Your task to perform on an android device: Show me productivity apps on the Play Store Image 0: 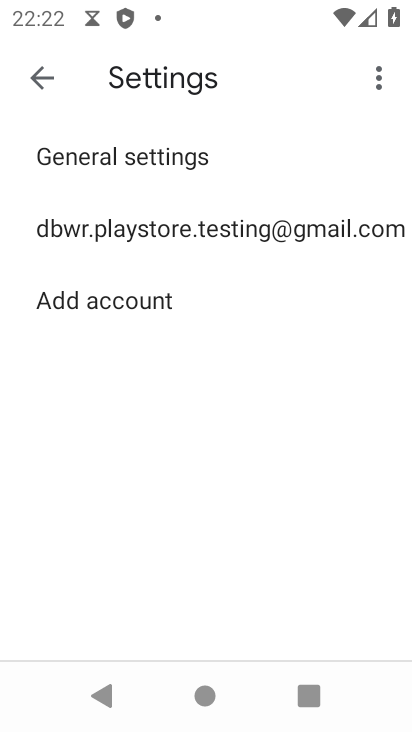
Step 0: press home button
Your task to perform on an android device: Show me productivity apps on the Play Store Image 1: 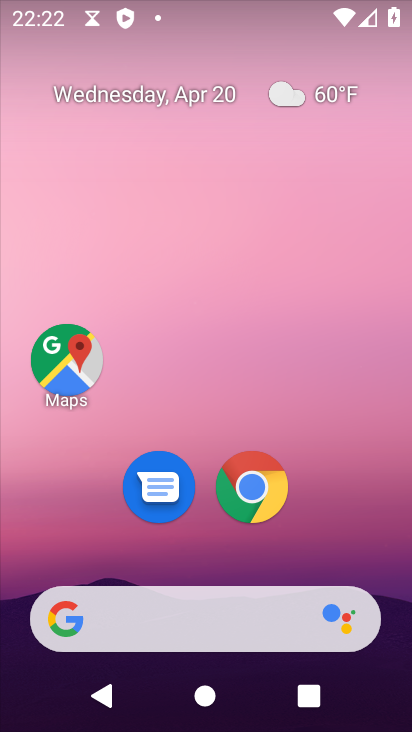
Step 1: drag from (50, 623) to (282, 323)
Your task to perform on an android device: Show me productivity apps on the Play Store Image 2: 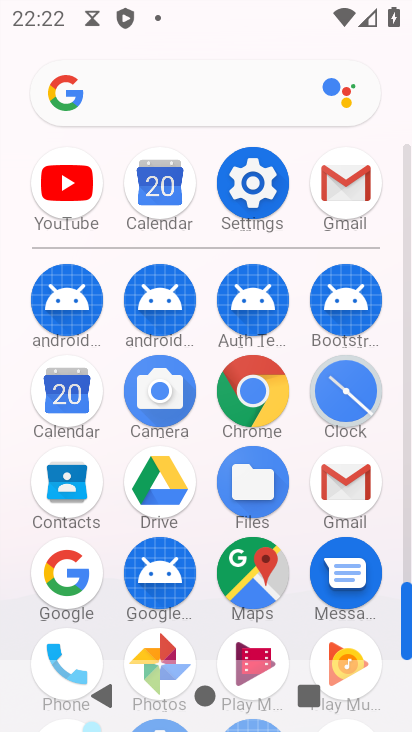
Step 2: drag from (35, 552) to (266, 213)
Your task to perform on an android device: Show me productivity apps on the Play Store Image 3: 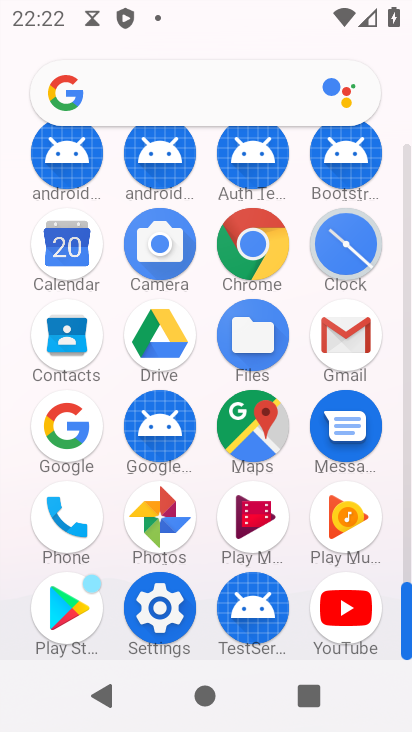
Step 3: click (72, 596)
Your task to perform on an android device: Show me productivity apps on the Play Store Image 4: 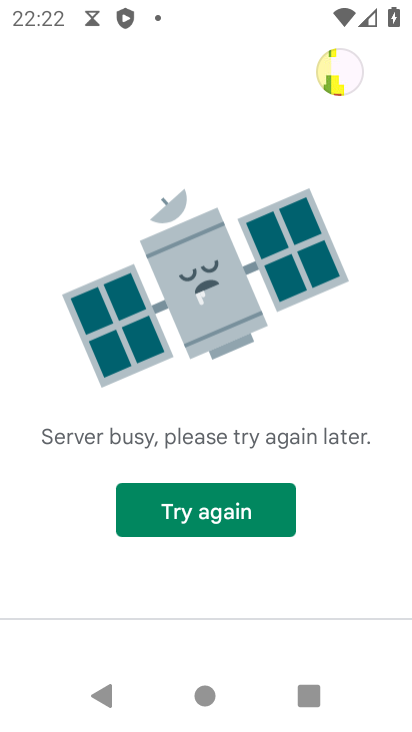
Step 4: task complete